Your task to perform on an android device: Search for flights from Seoul to Barcelona Image 0: 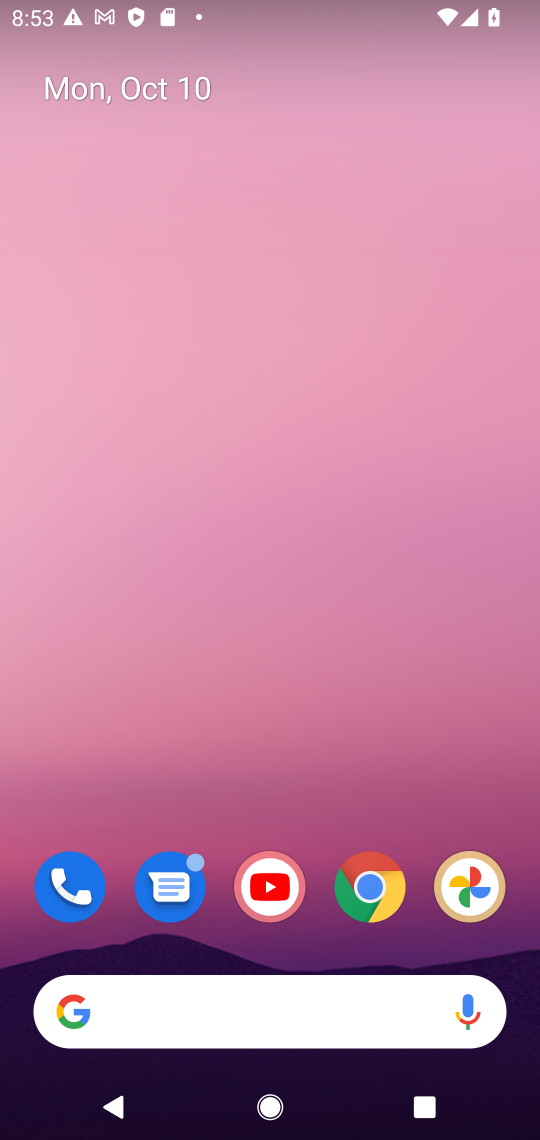
Step 0: click (385, 888)
Your task to perform on an android device: Search for flights from Seoul to Barcelona Image 1: 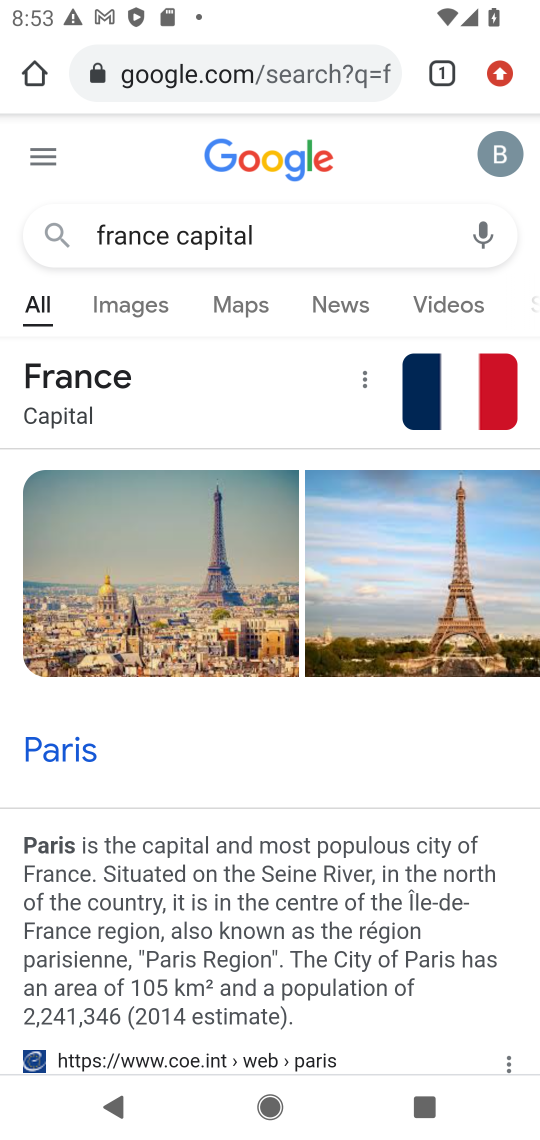
Step 1: click (307, 90)
Your task to perform on an android device: Search for flights from Seoul to Barcelona Image 2: 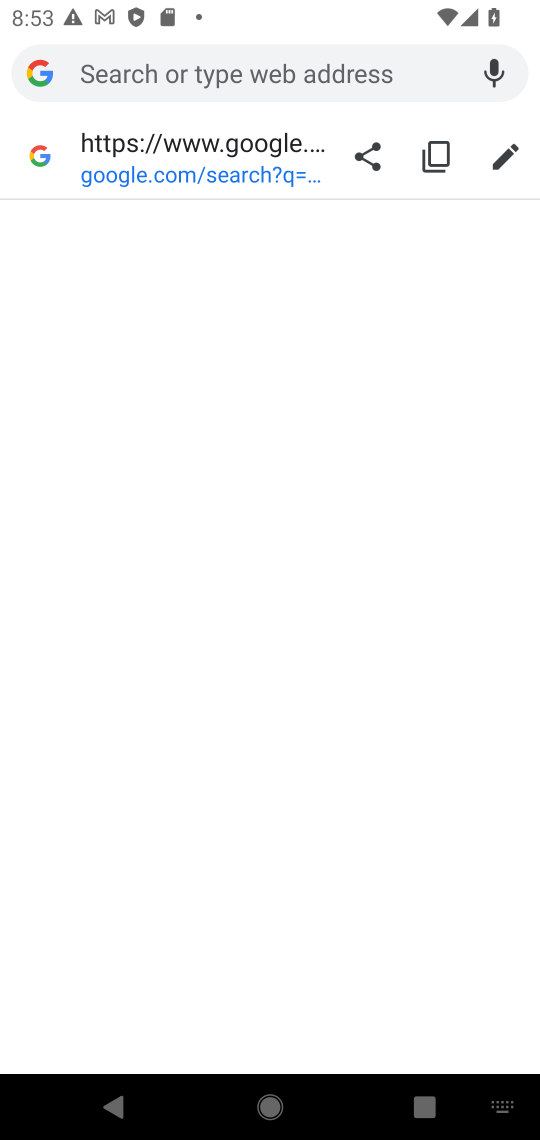
Step 2: type "seoul to barcelona flights"
Your task to perform on an android device: Search for flights from Seoul to Barcelona Image 3: 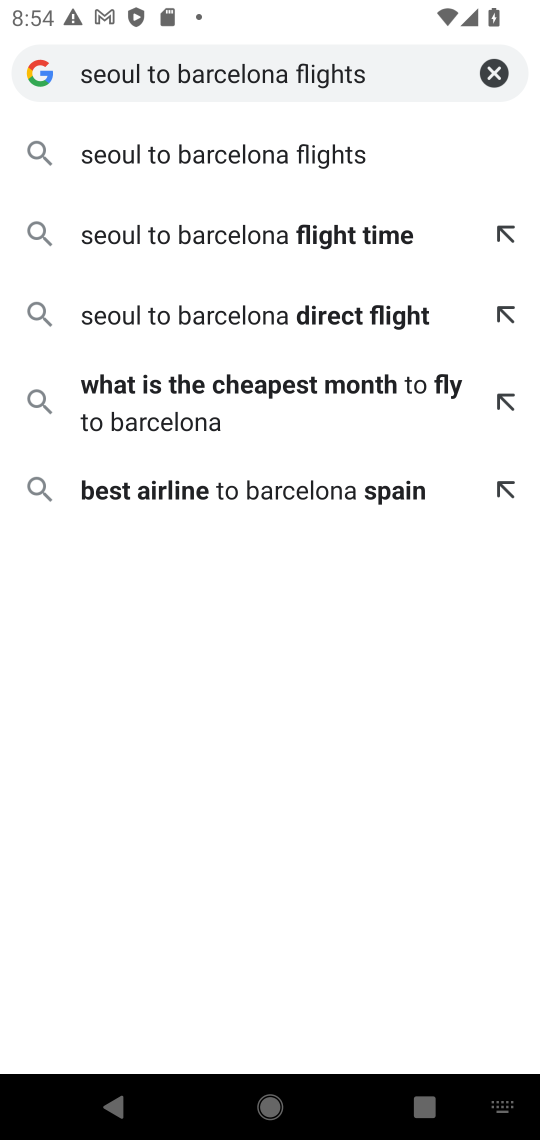
Step 3: click (334, 169)
Your task to perform on an android device: Search for flights from Seoul to Barcelona Image 4: 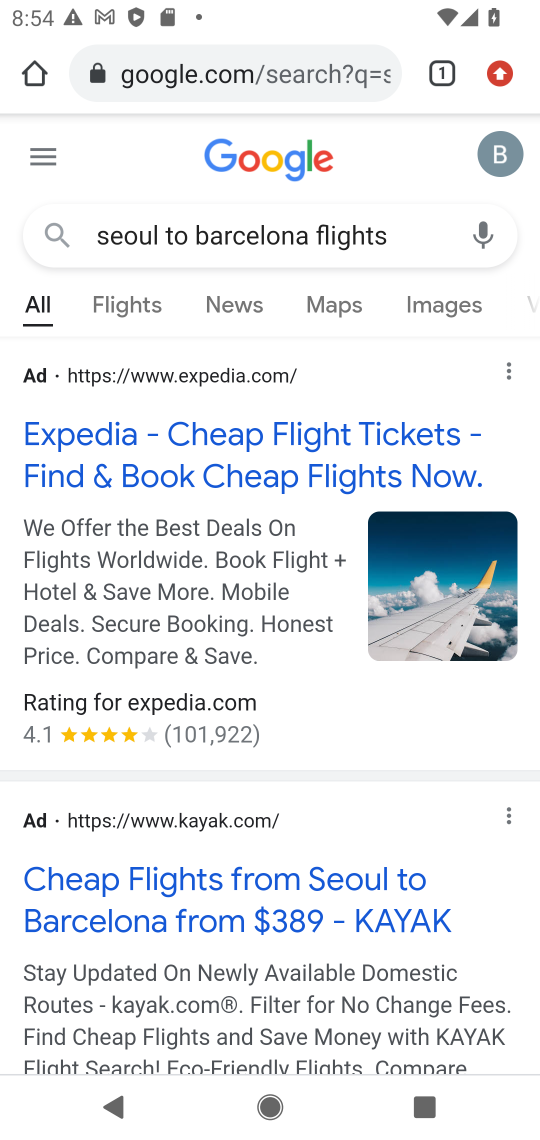
Step 4: click (137, 305)
Your task to perform on an android device: Search for flights from Seoul to Barcelona Image 5: 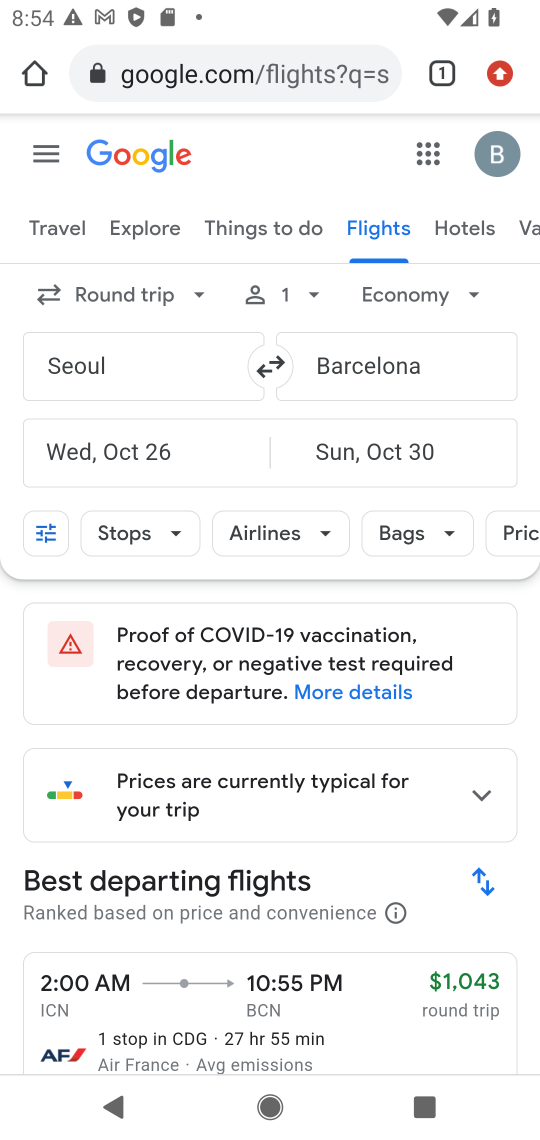
Step 5: task complete